Your task to perform on an android device: see tabs open on other devices in the chrome app Image 0: 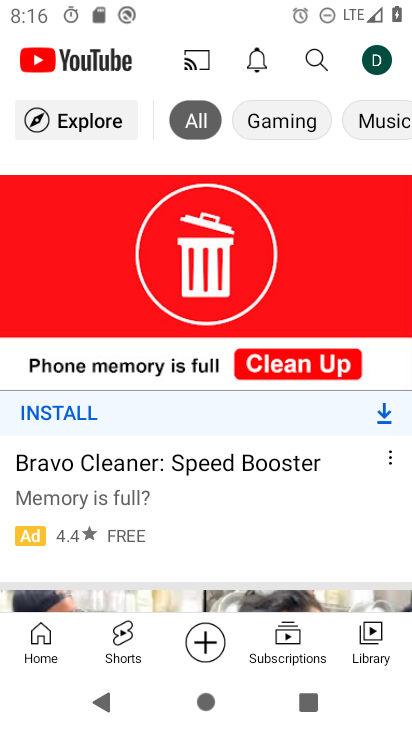
Step 0: press home button
Your task to perform on an android device: see tabs open on other devices in the chrome app Image 1: 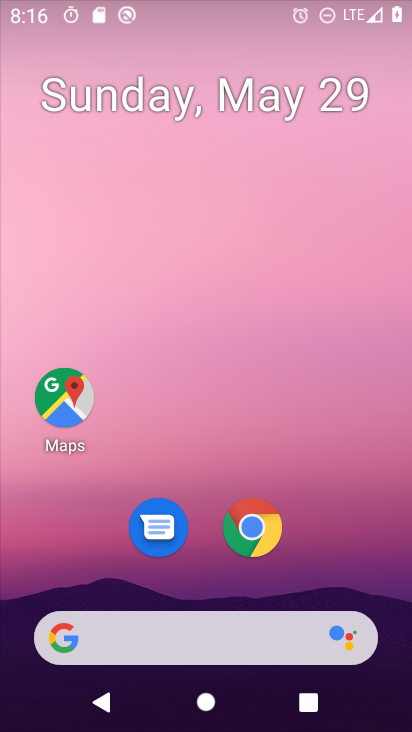
Step 1: drag from (378, 581) to (248, 27)
Your task to perform on an android device: see tabs open on other devices in the chrome app Image 2: 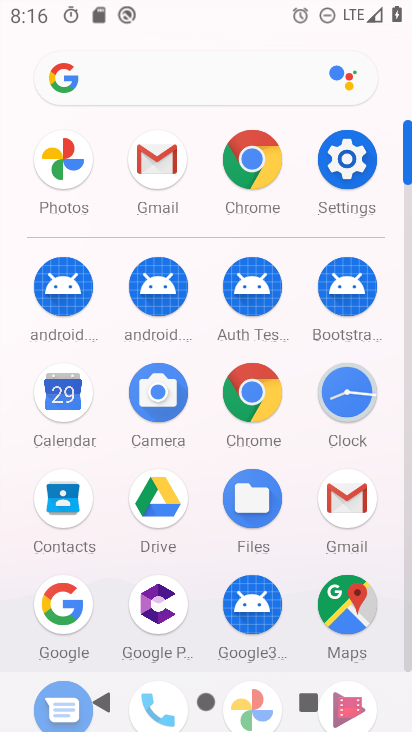
Step 2: click (256, 178)
Your task to perform on an android device: see tabs open on other devices in the chrome app Image 3: 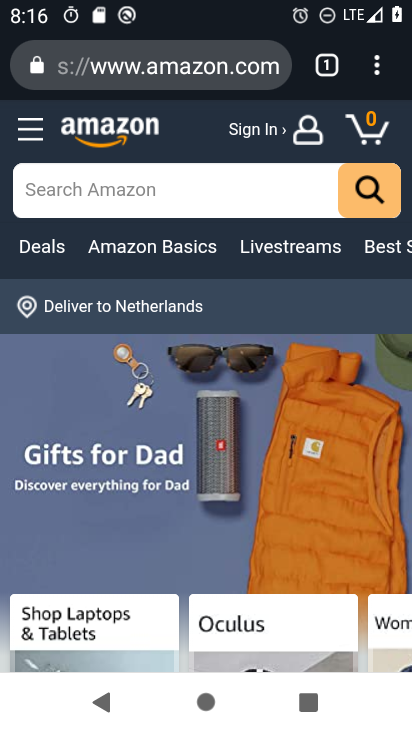
Step 3: task complete